Your task to perform on an android device: set default search engine in the chrome app Image 0: 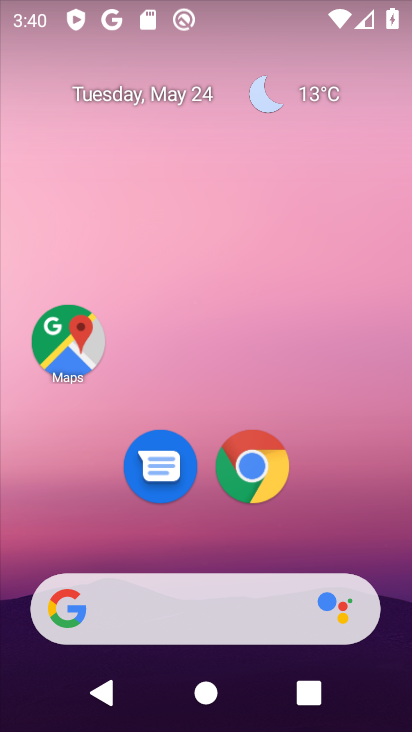
Step 0: click (255, 472)
Your task to perform on an android device: set default search engine in the chrome app Image 1: 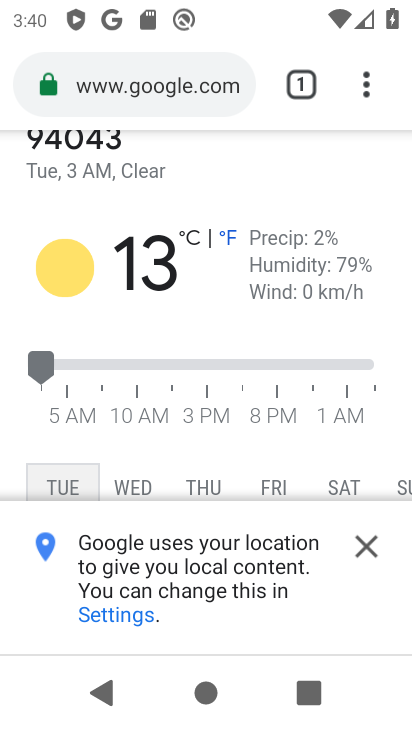
Step 1: click (364, 82)
Your task to perform on an android device: set default search engine in the chrome app Image 2: 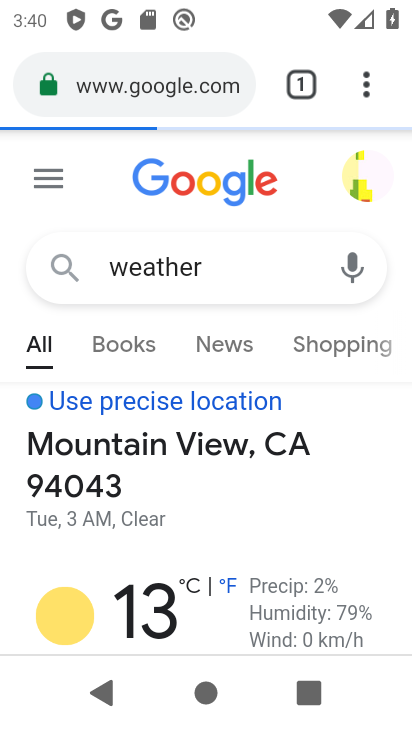
Step 2: drag from (362, 88) to (182, 509)
Your task to perform on an android device: set default search engine in the chrome app Image 3: 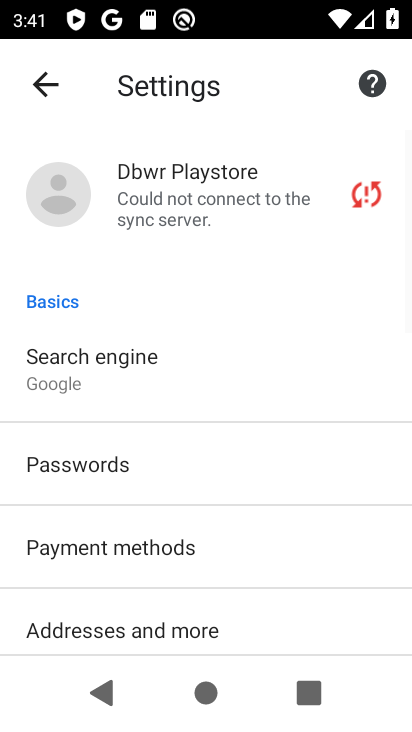
Step 3: click (156, 373)
Your task to perform on an android device: set default search engine in the chrome app Image 4: 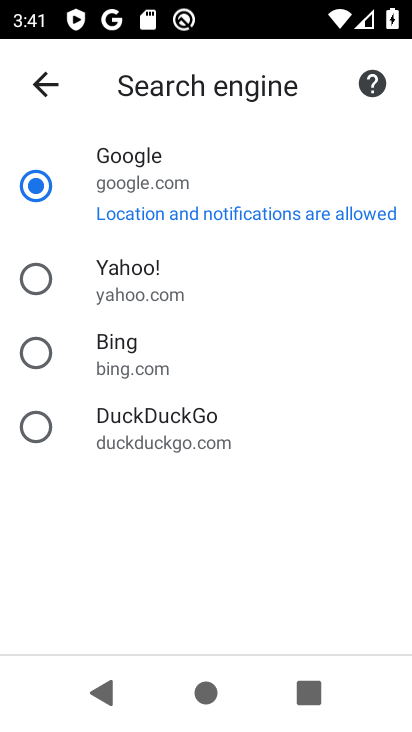
Step 4: task complete